Your task to perform on an android device: Search for usb-c to usb-a on amazon.com, select the first entry, and add it to the cart. Image 0: 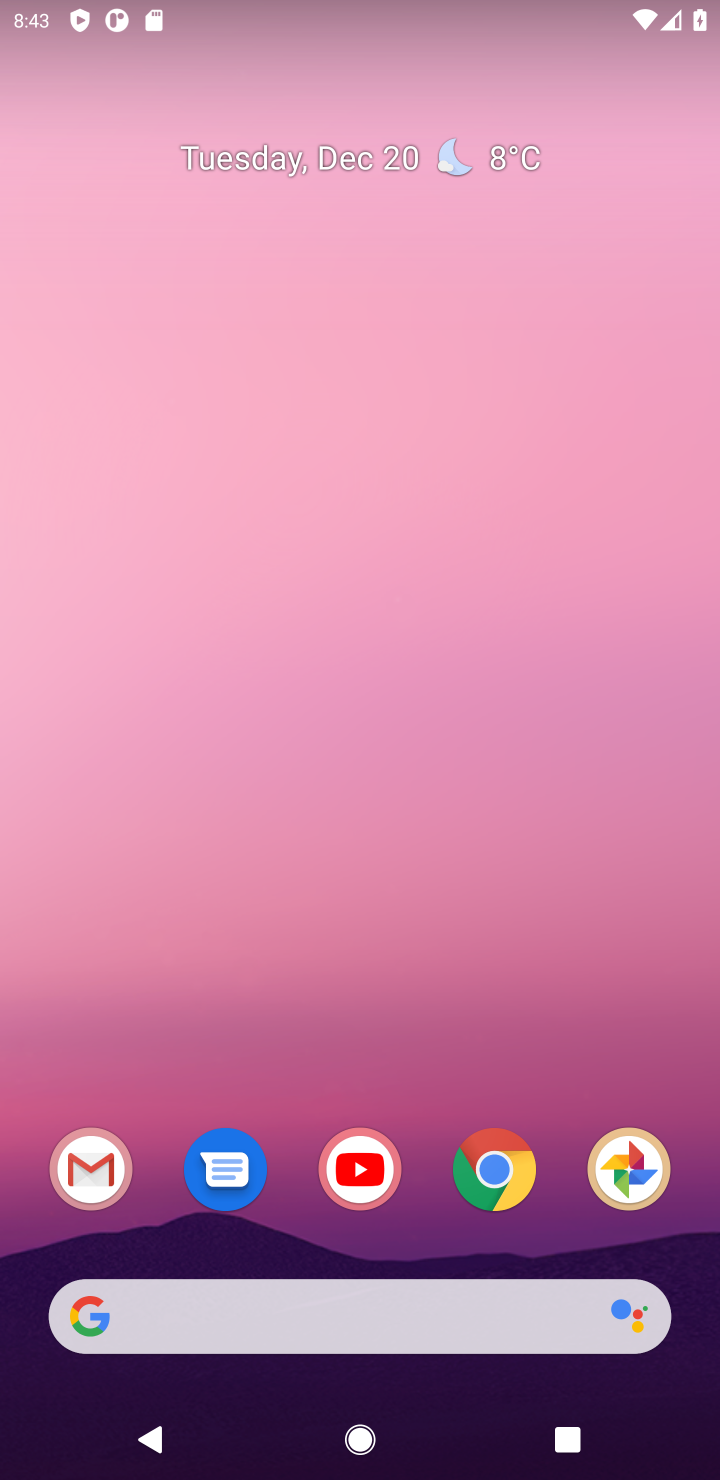
Step 0: click (479, 1160)
Your task to perform on an android device: Search for usb-c to usb-a on amazon.com, select the first entry, and add it to the cart. Image 1: 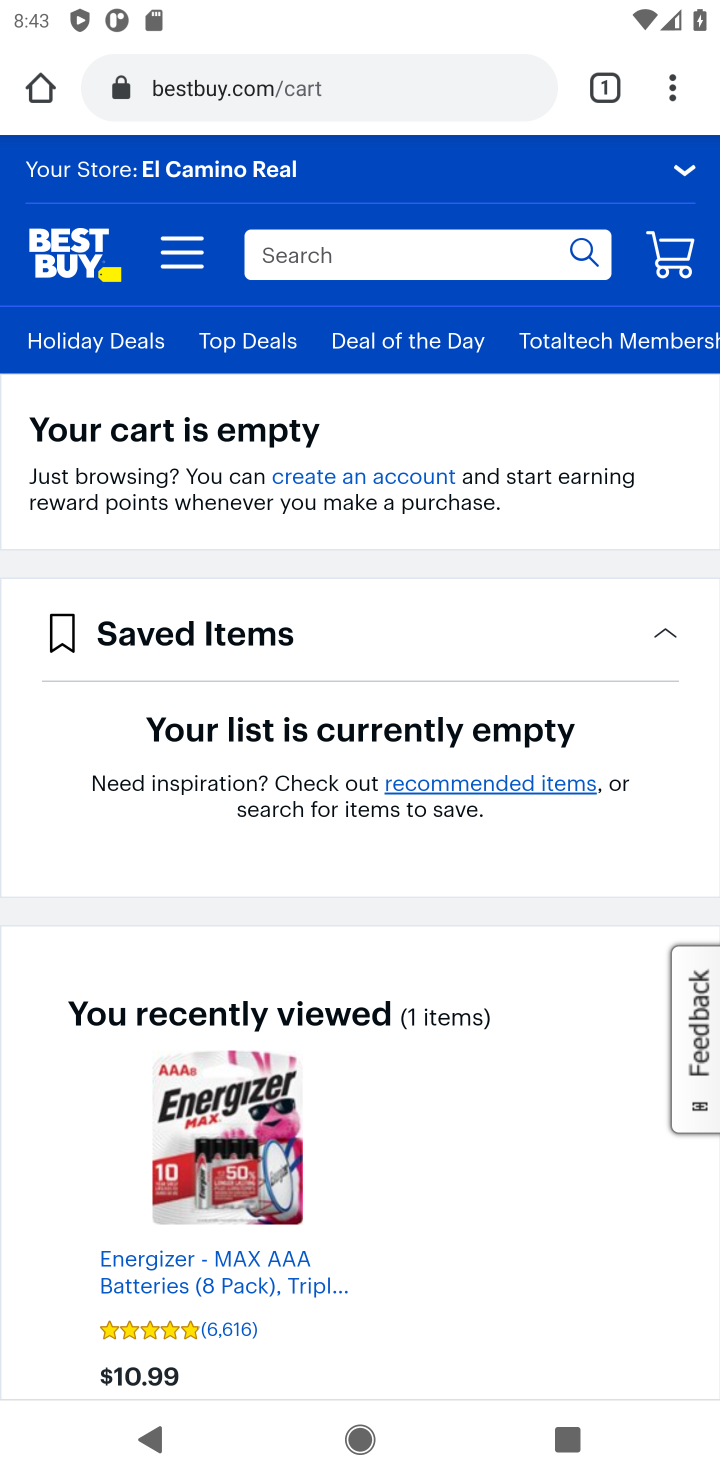
Step 1: click (227, 84)
Your task to perform on an android device: Search for usb-c to usb-a on amazon.com, select the first entry, and add it to the cart. Image 2: 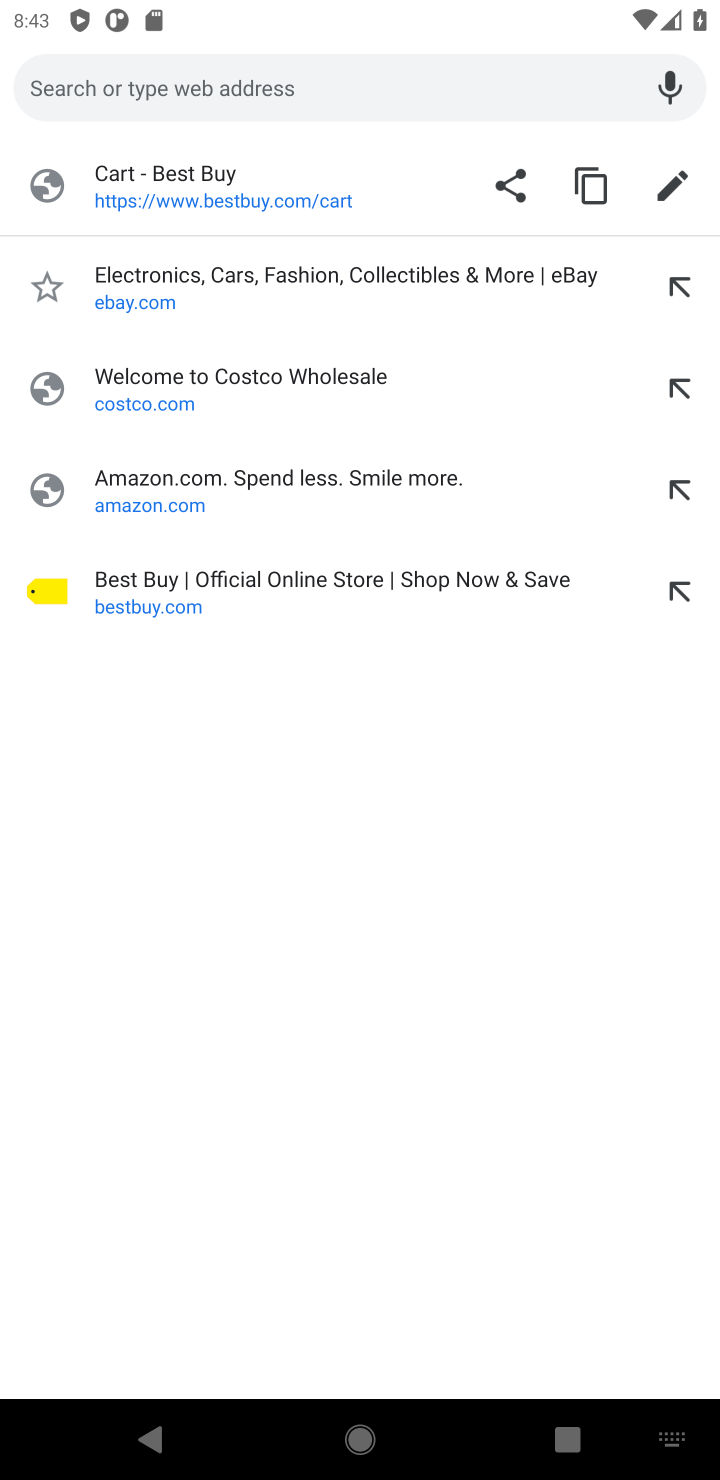
Step 2: type "amazon.com"
Your task to perform on an android device: Search for usb-c to usb-a on amazon.com, select the first entry, and add it to the cart. Image 3: 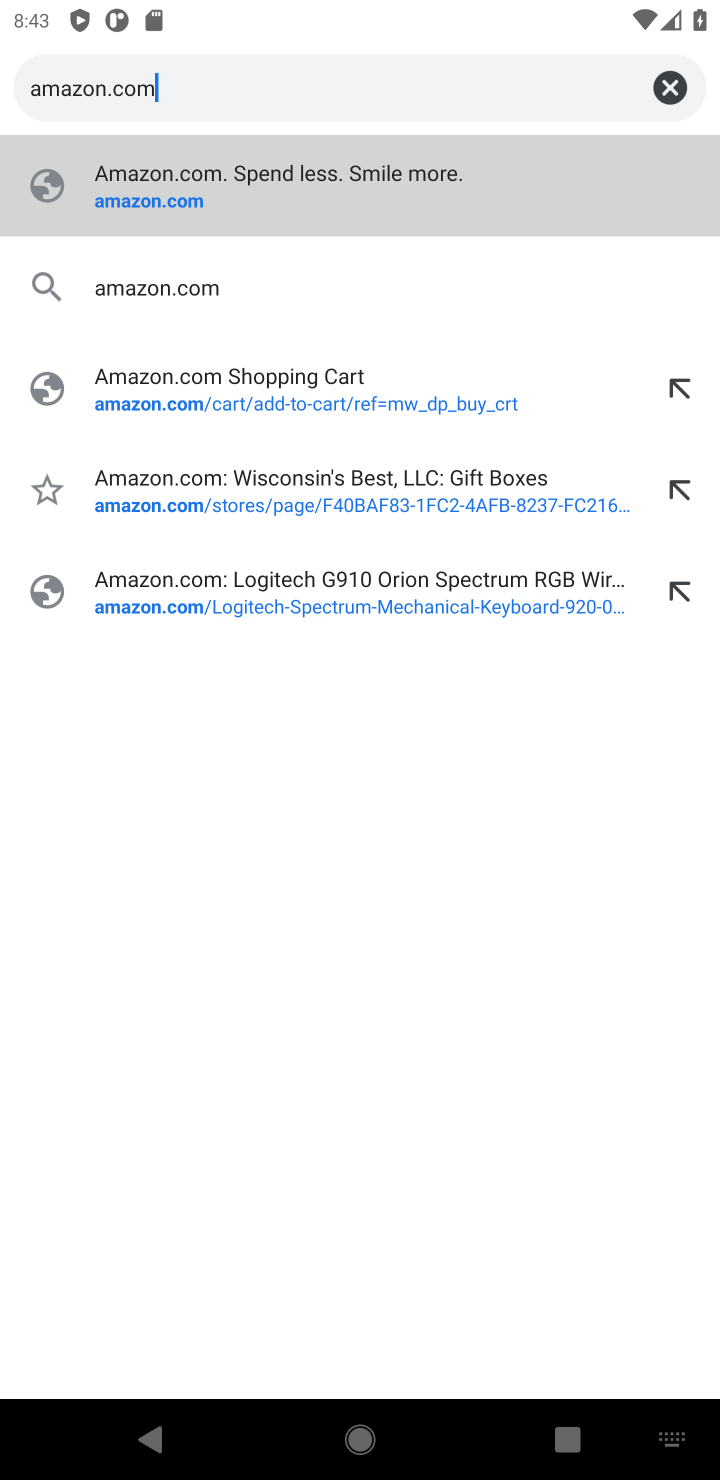
Step 3: click (195, 190)
Your task to perform on an android device: Search for usb-c to usb-a on amazon.com, select the first entry, and add it to the cart. Image 4: 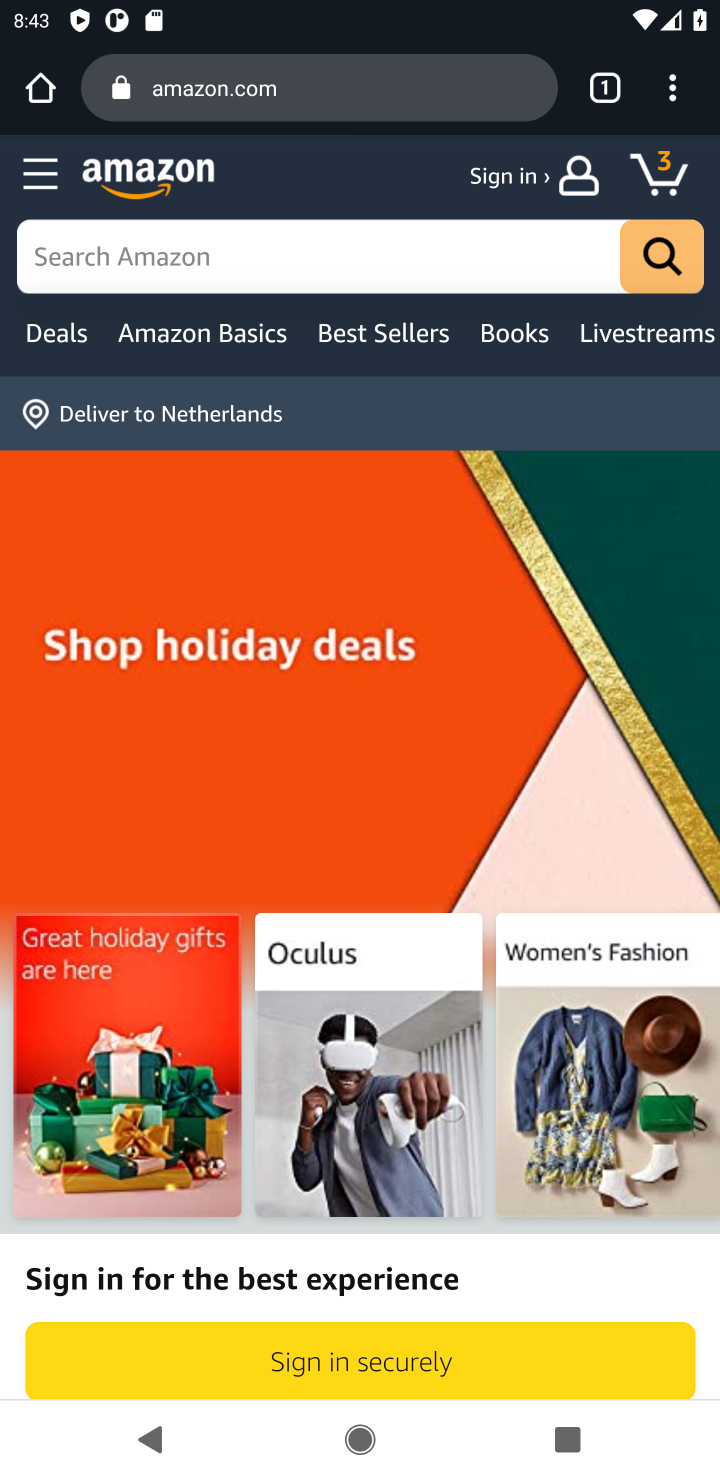
Step 4: click (327, 273)
Your task to perform on an android device: Search for usb-c to usb-a on amazon.com, select the first entry, and add it to the cart. Image 5: 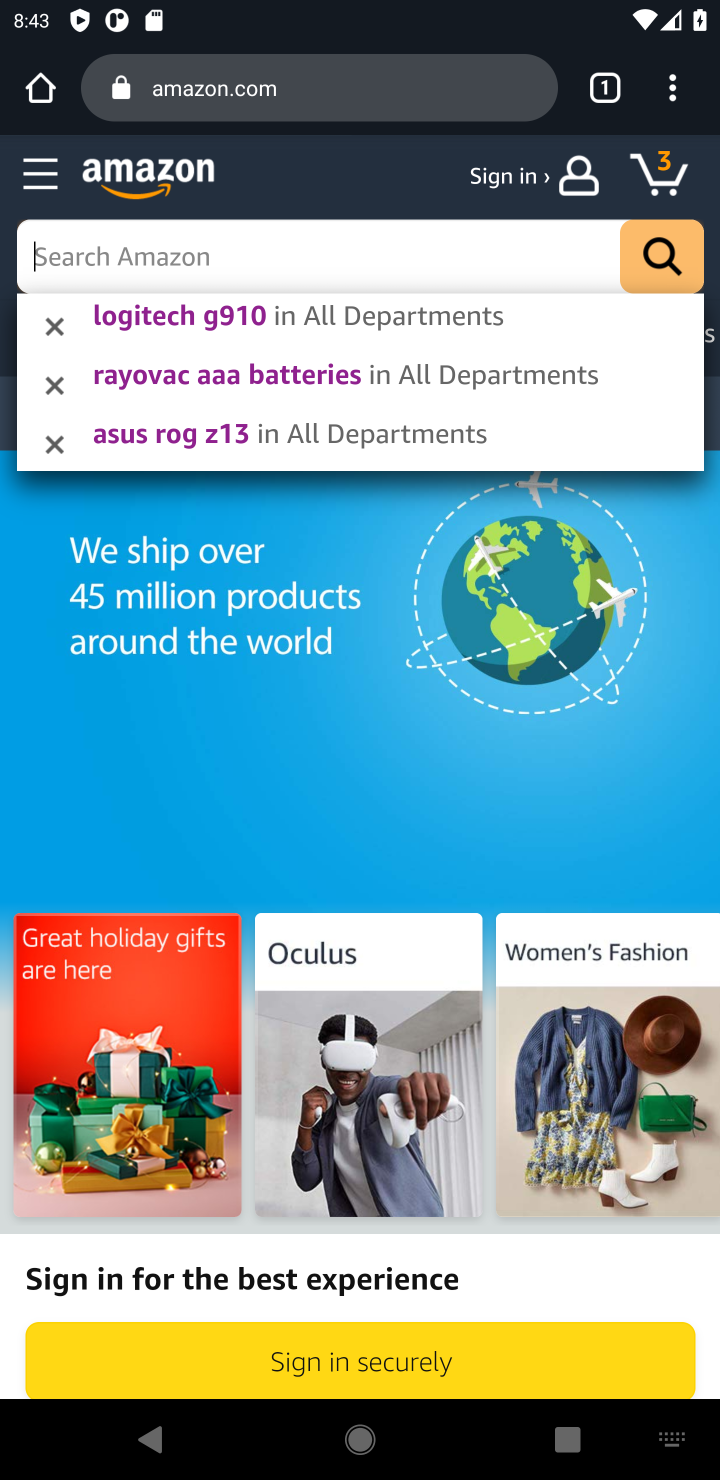
Step 5: type "usb-c to usb-a"
Your task to perform on an android device: Search for usb-c to usb-a on amazon.com, select the first entry, and add it to the cart. Image 6: 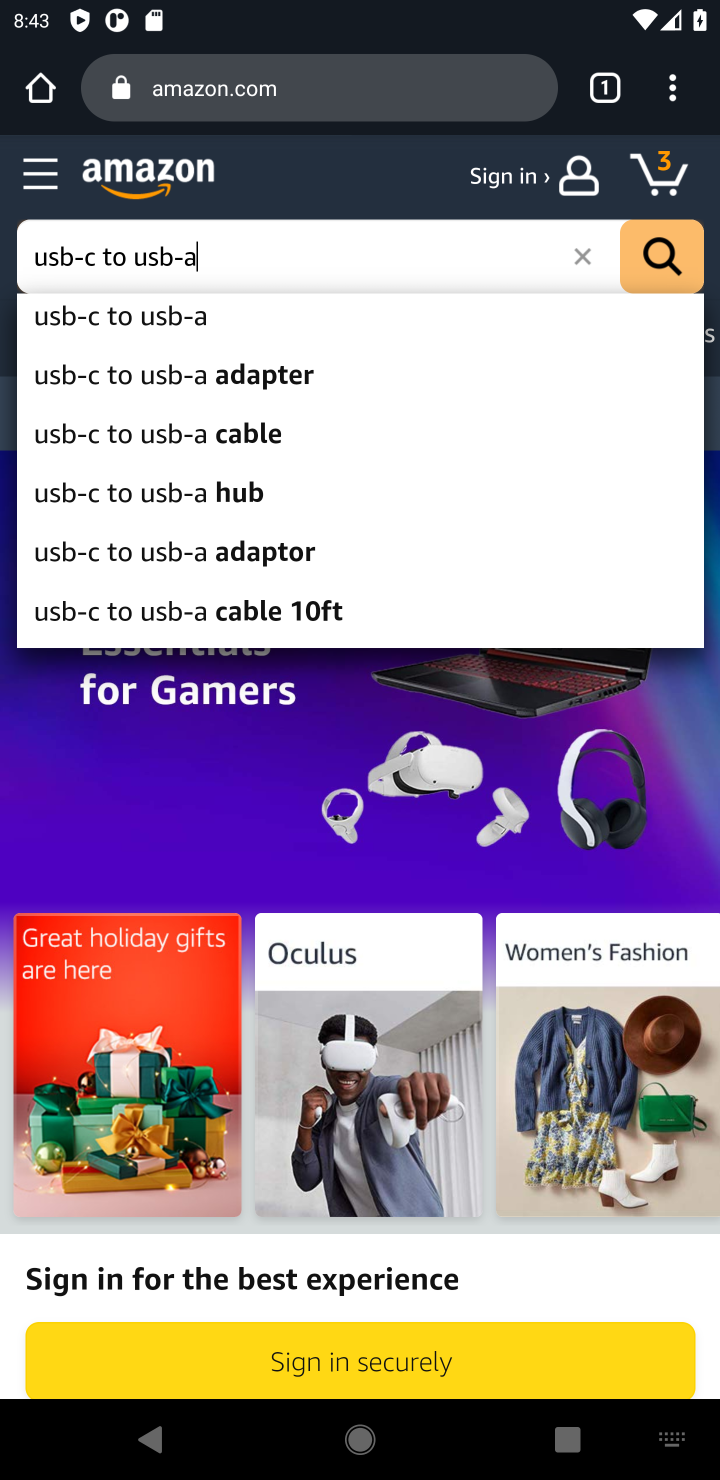
Step 6: click (667, 268)
Your task to perform on an android device: Search for usb-c to usb-a on amazon.com, select the first entry, and add it to the cart. Image 7: 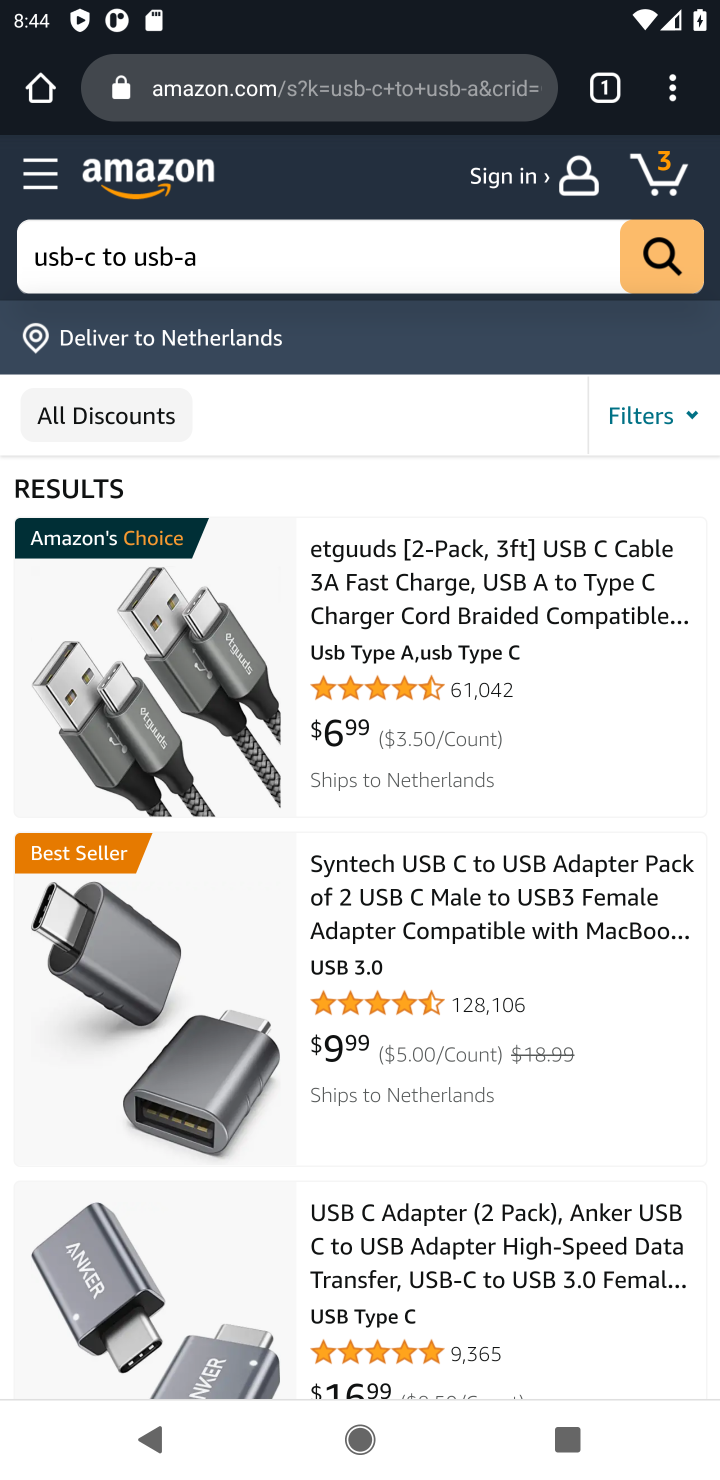
Step 7: click (456, 602)
Your task to perform on an android device: Search for usb-c to usb-a on amazon.com, select the first entry, and add it to the cart. Image 8: 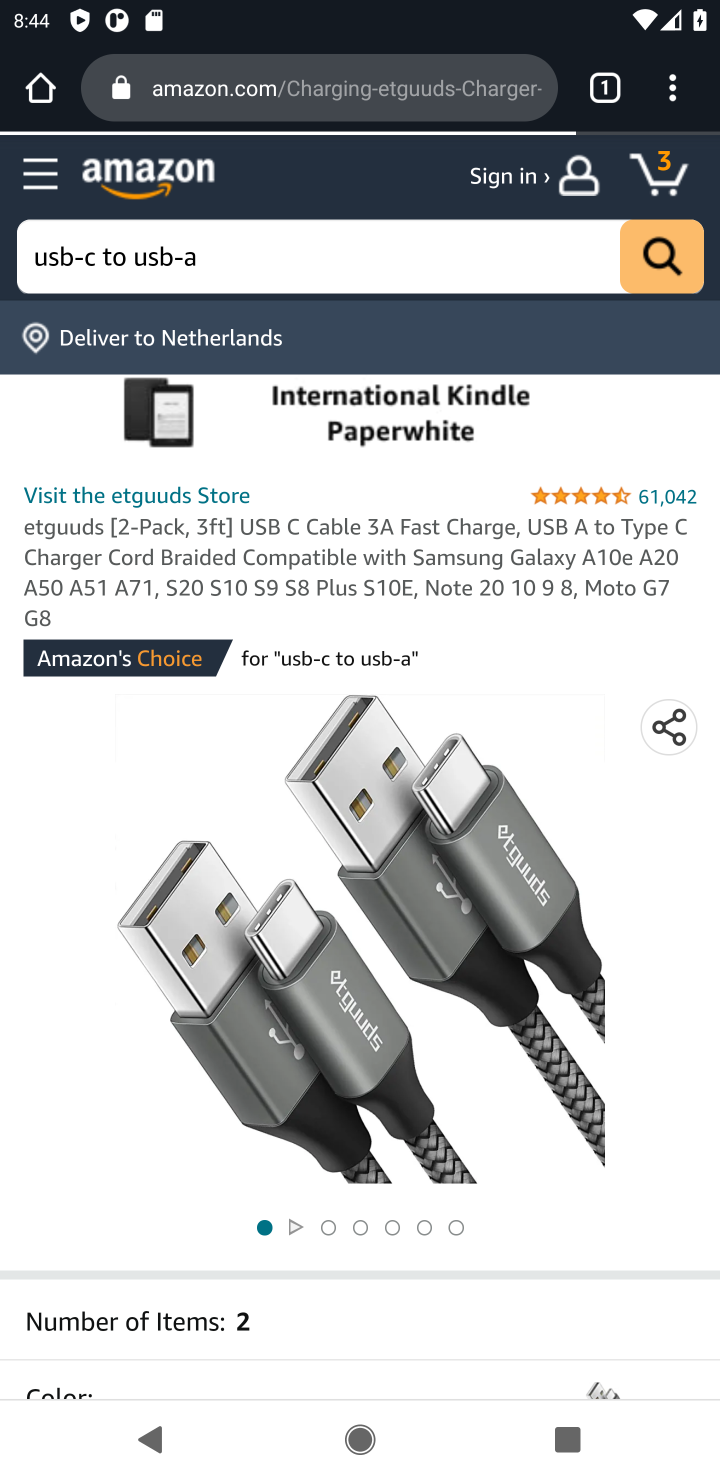
Step 8: drag from (532, 1130) to (498, 569)
Your task to perform on an android device: Search for usb-c to usb-a on amazon.com, select the first entry, and add it to the cart. Image 9: 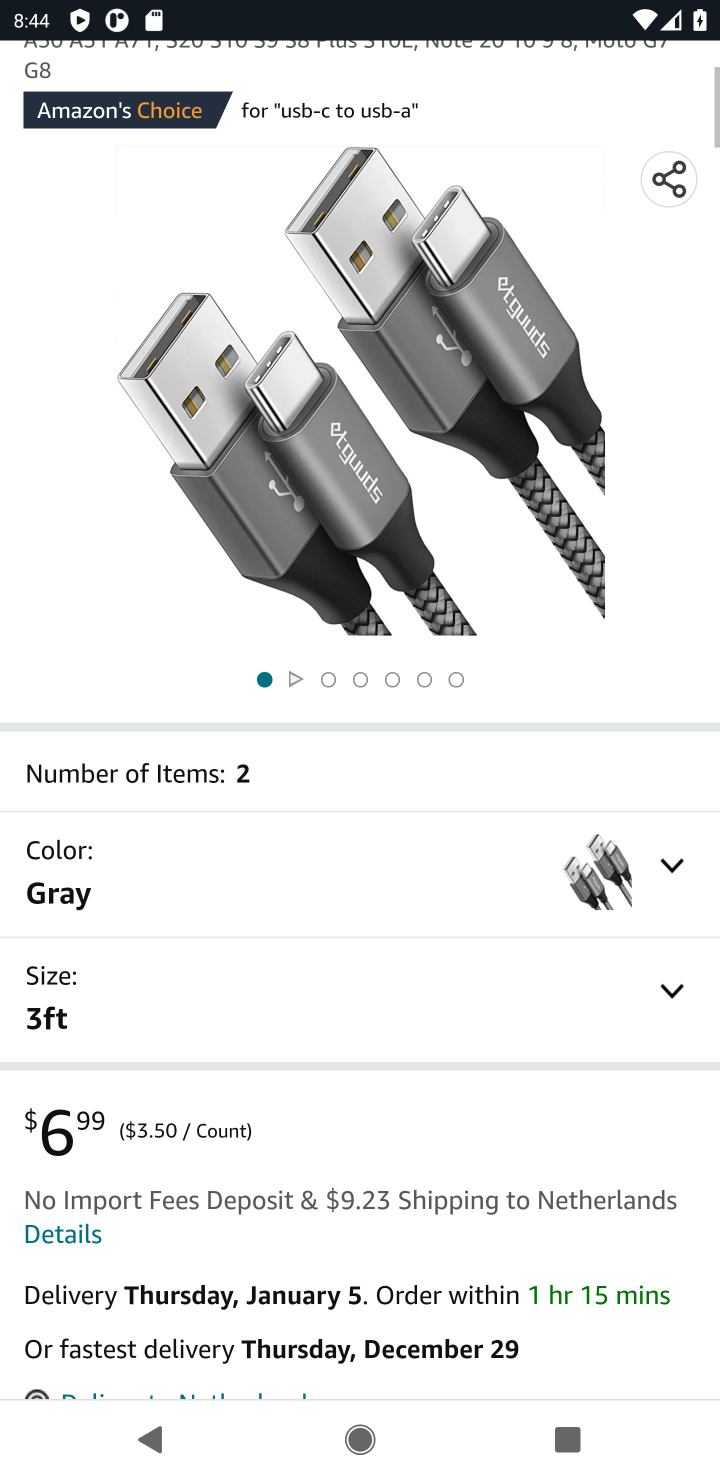
Step 9: drag from (430, 1192) to (429, 549)
Your task to perform on an android device: Search for usb-c to usb-a on amazon.com, select the first entry, and add it to the cart. Image 10: 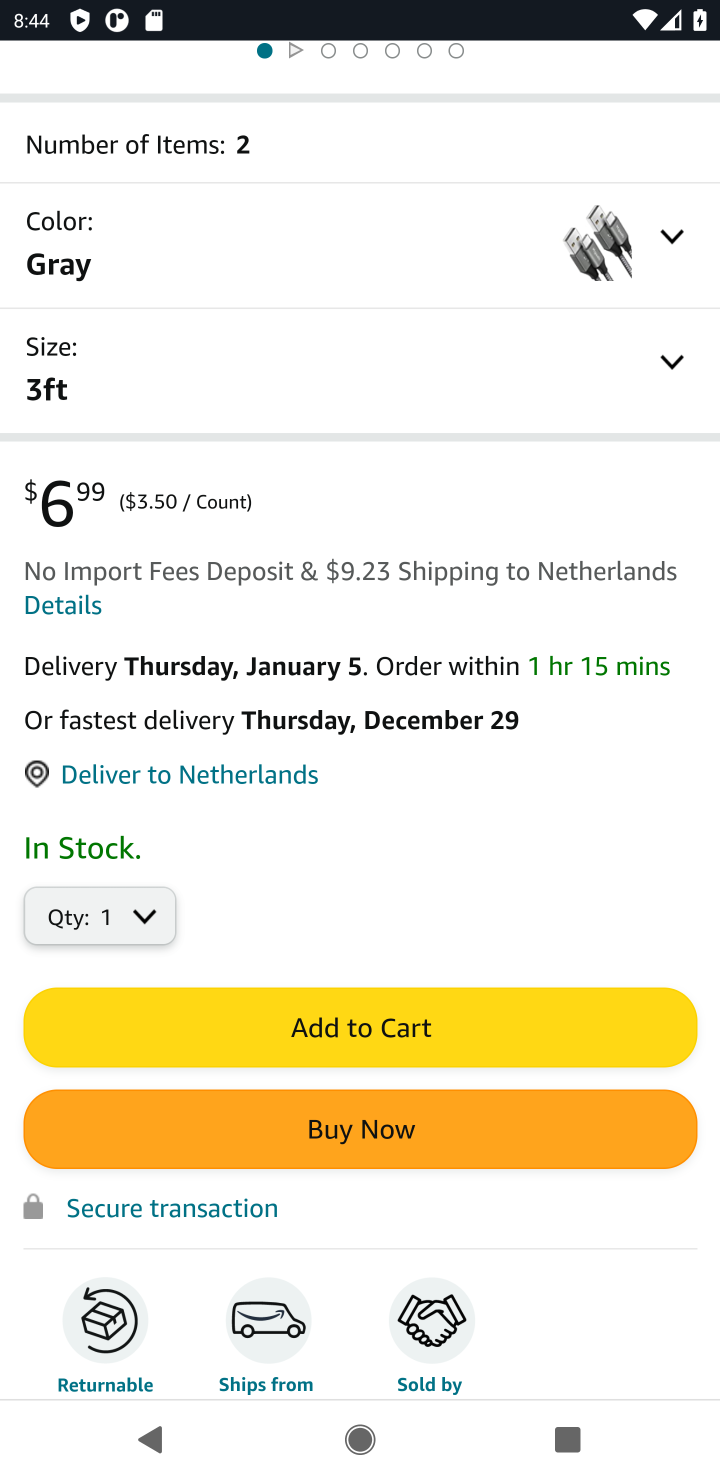
Step 10: click (404, 1052)
Your task to perform on an android device: Search for usb-c to usb-a on amazon.com, select the first entry, and add it to the cart. Image 11: 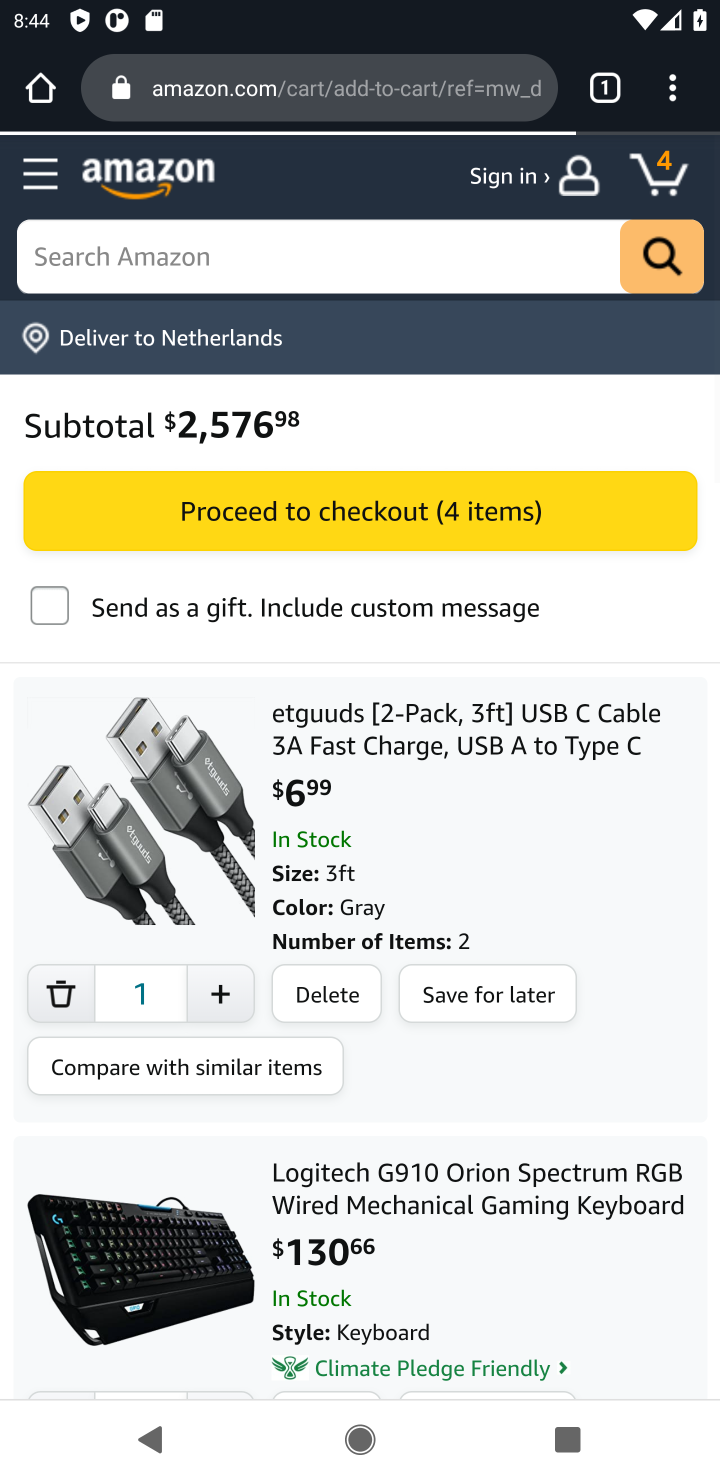
Step 11: task complete